Your task to perform on an android device: Go to notification settings Image 0: 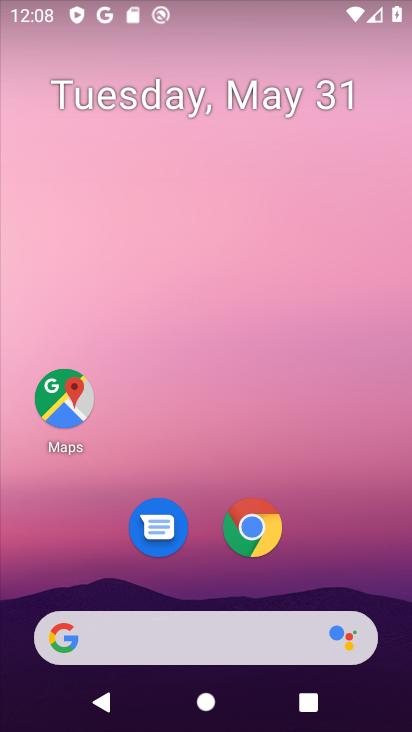
Step 0: drag from (235, 666) to (165, 176)
Your task to perform on an android device: Go to notification settings Image 1: 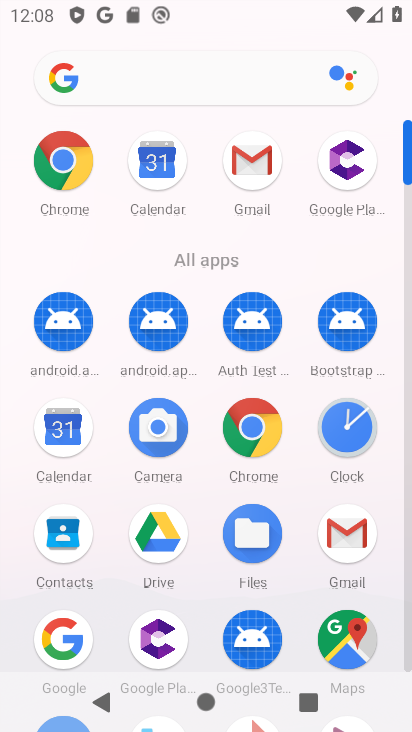
Step 1: click (297, 166)
Your task to perform on an android device: Go to notification settings Image 2: 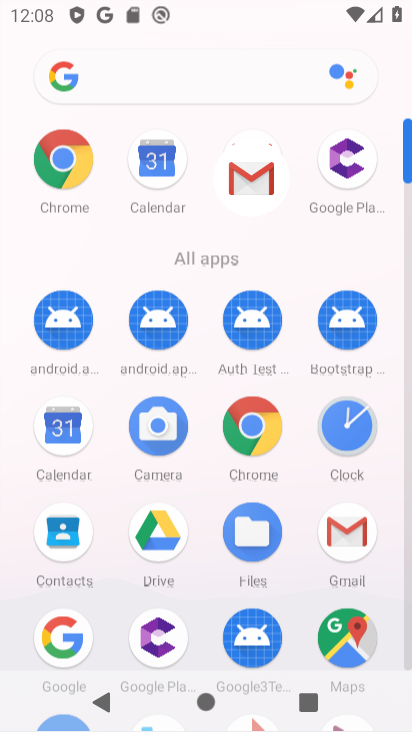
Step 2: drag from (317, 457) to (293, 273)
Your task to perform on an android device: Go to notification settings Image 3: 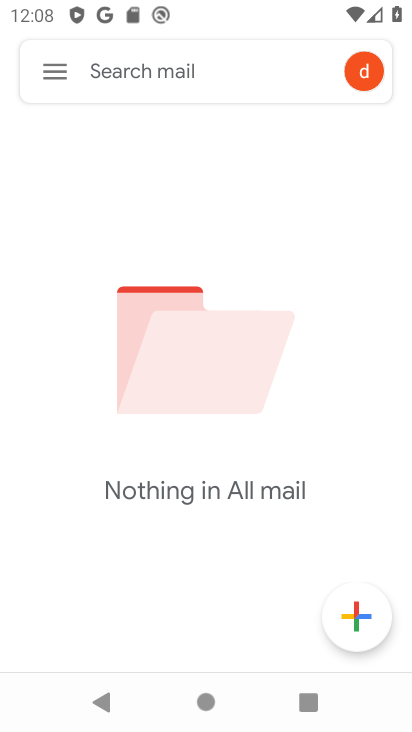
Step 3: press back button
Your task to perform on an android device: Go to notification settings Image 4: 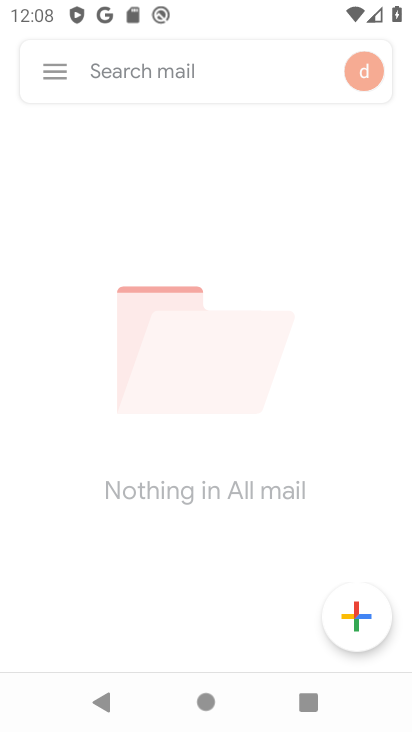
Step 4: press back button
Your task to perform on an android device: Go to notification settings Image 5: 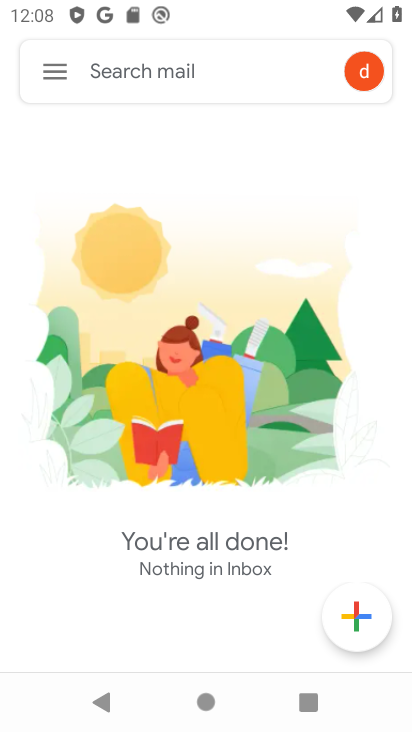
Step 5: press back button
Your task to perform on an android device: Go to notification settings Image 6: 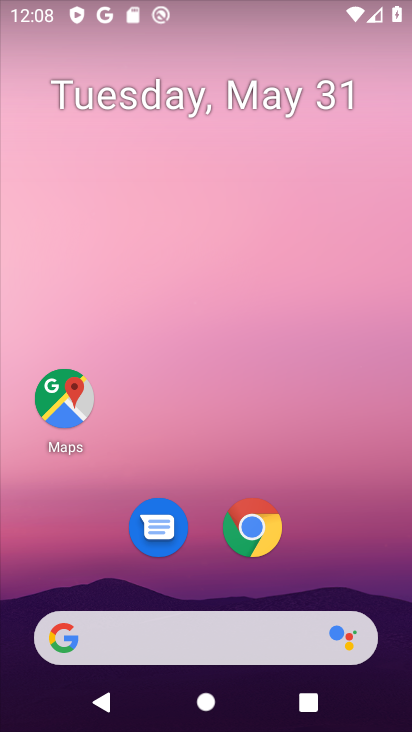
Step 6: drag from (242, 622) to (206, 328)
Your task to perform on an android device: Go to notification settings Image 7: 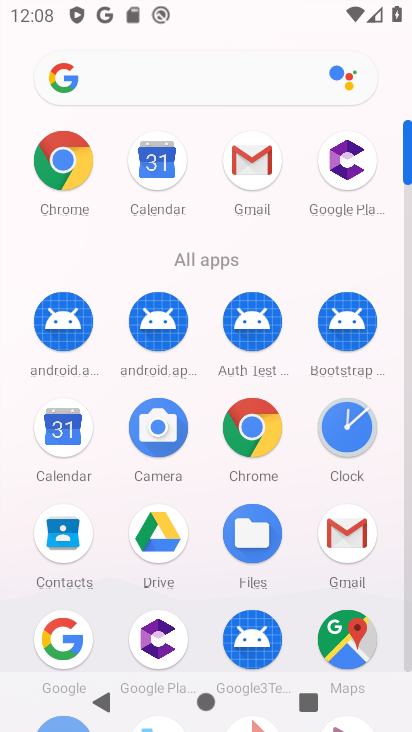
Step 7: click (185, 226)
Your task to perform on an android device: Go to notification settings Image 8: 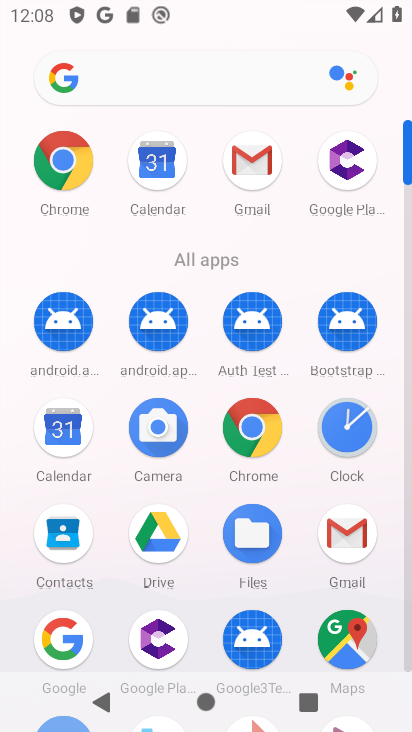
Step 8: drag from (240, 471) to (244, 202)
Your task to perform on an android device: Go to notification settings Image 9: 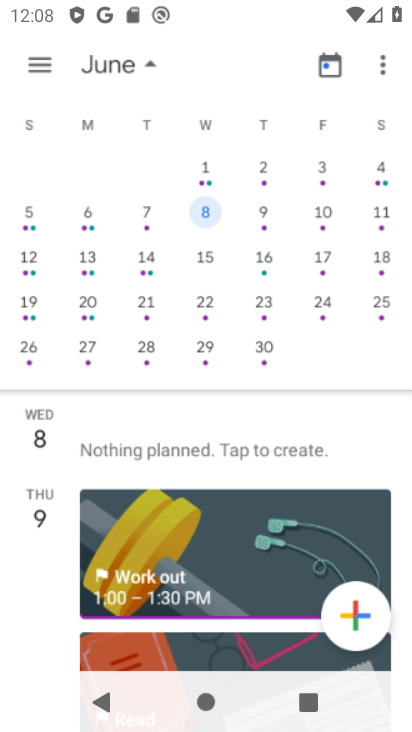
Step 9: drag from (219, 506) to (174, 158)
Your task to perform on an android device: Go to notification settings Image 10: 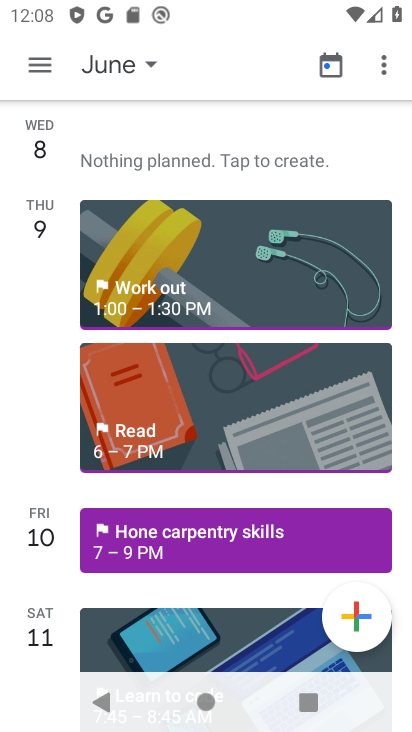
Step 10: press back button
Your task to perform on an android device: Go to notification settings Image 11: 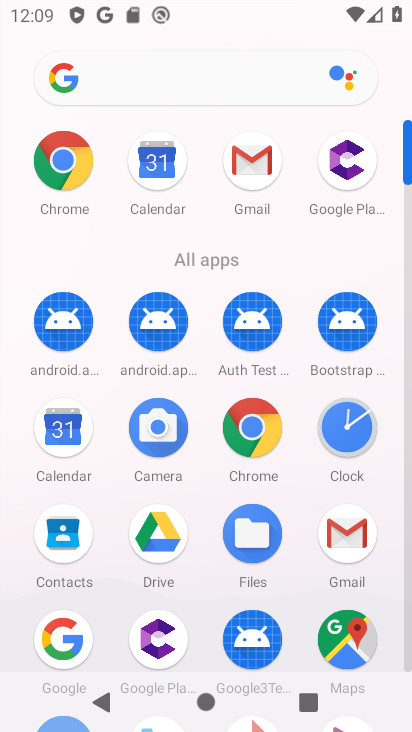
Step 11: drag from (273, 436) to (254, 294)
Your task to perform on an android device: Go to notification settings Image 12: 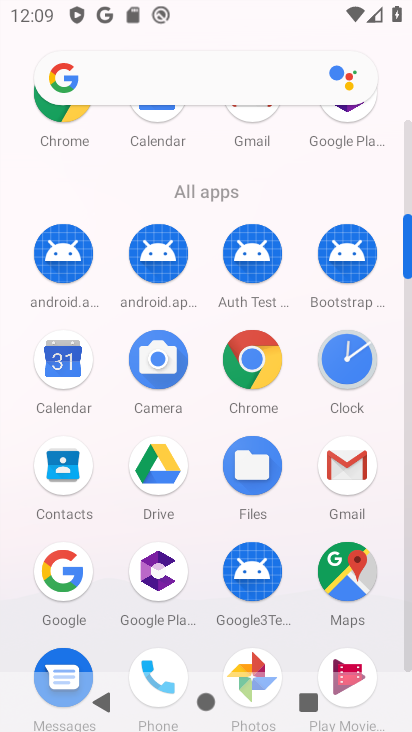
Step 12: drag from (268, 508) to (288, 239)
Your task to perform on an android device: Go to notification settings Image 13: 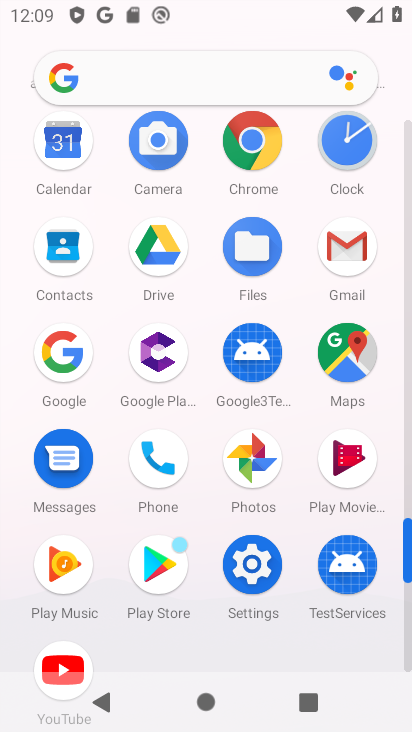
Step 13: click (248, 572)
Your task to perform on an android device: Go to notification settings Image 14: 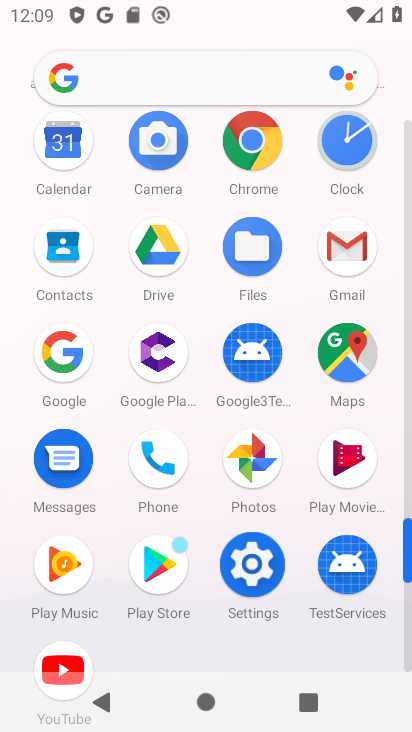
Step 14: click (252, 568)
Your task to perform on an android device: Go to notification settings Image 15: 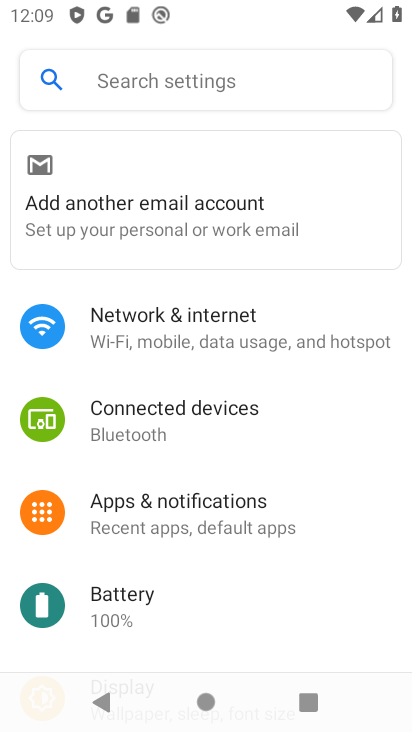
Step 15: click (201, 505)
Your task to perform on an android device: Go to notification settings Image 16: 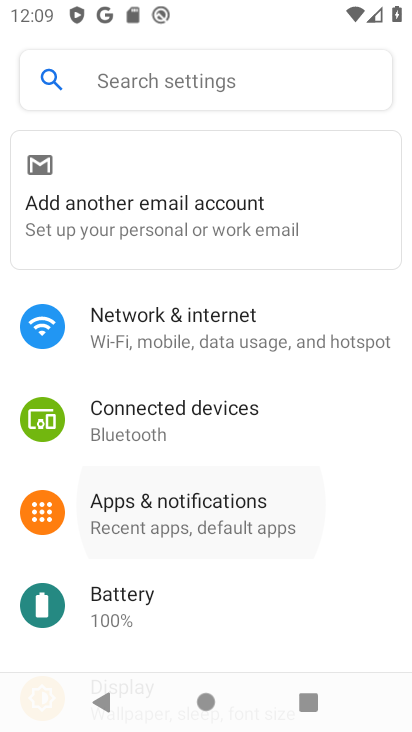
Step 16: click (201, 505)
Your task to perform on an android device: Go to notification settings Image 17: 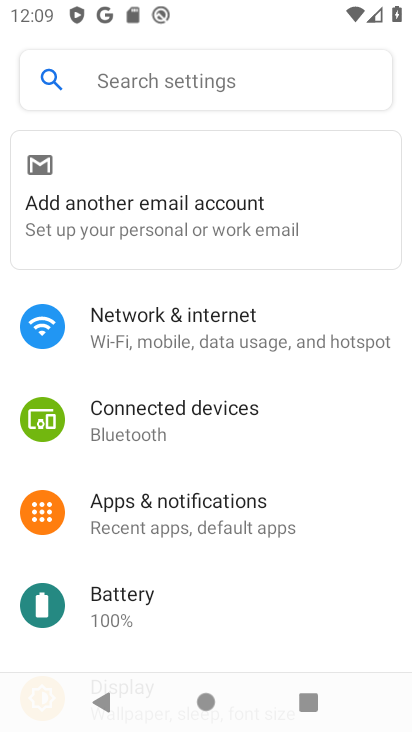
Step 17: click (209, 505)
Your task to perform on an android device: Go to notification settings Image 18: 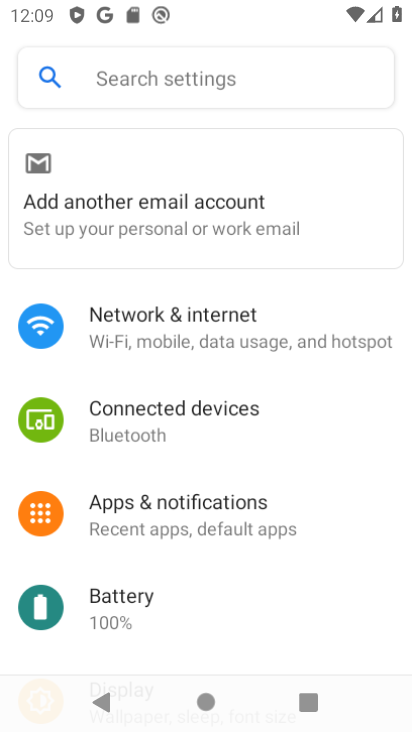
Step 18: click (189, 511)
Your task to perform on an android device: Go to notification settings Image 19: 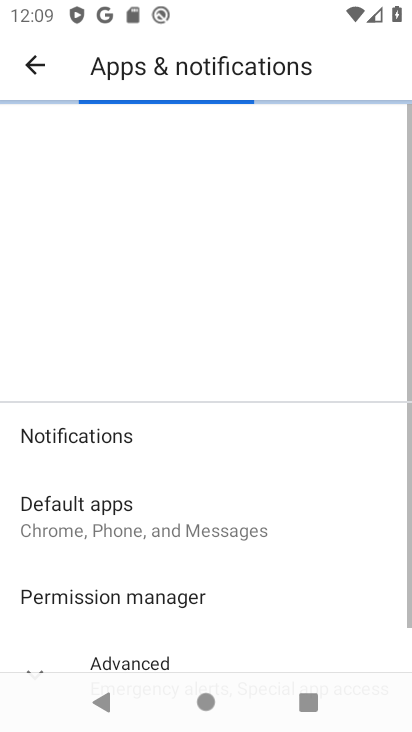
Step 19: click (187, 509)
Your task to perform on an android device: Go to notification settings Image 20: 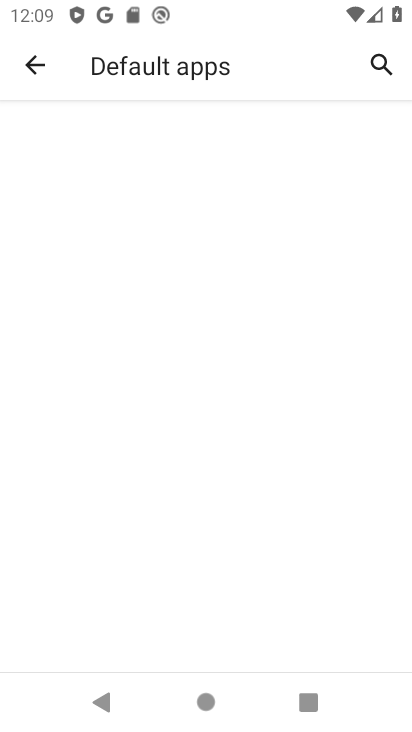
Step 20: task complete